Your task to perform on an android device: toggle improve location accuracy Image 0: 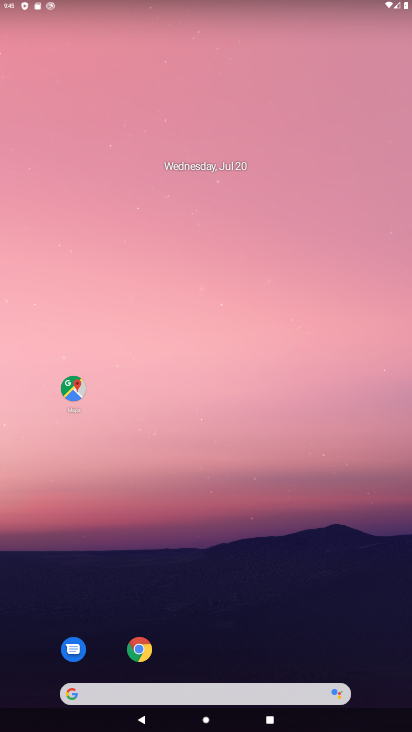
Step 0: drag from (374, 638) to (282, 230)
Your task to perform on an android device: toggle improve location accuracy Image 1: 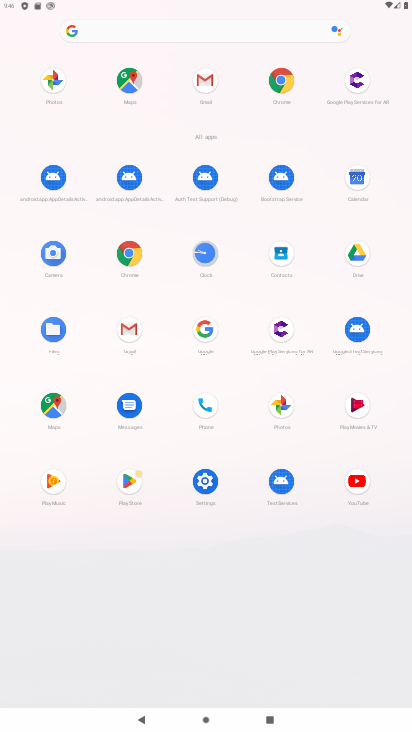
Step 1: click (213, 473)
Your task to perform on an android device: toggle improve location accuracy Image 2: 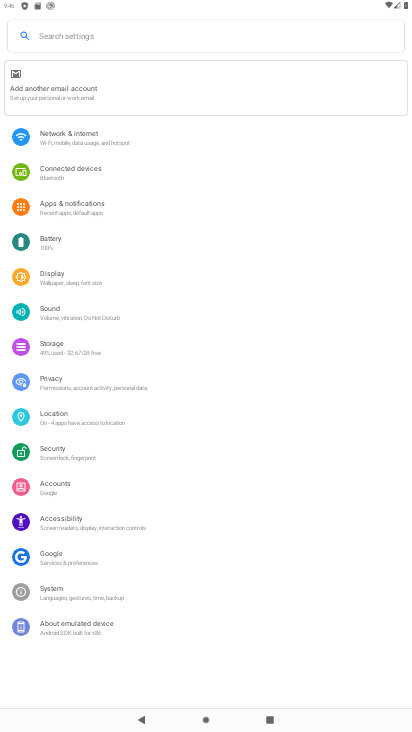
Step 2: click (59, 432)
Your task to perform on an android device: toggle improve location accuracy Image 3: 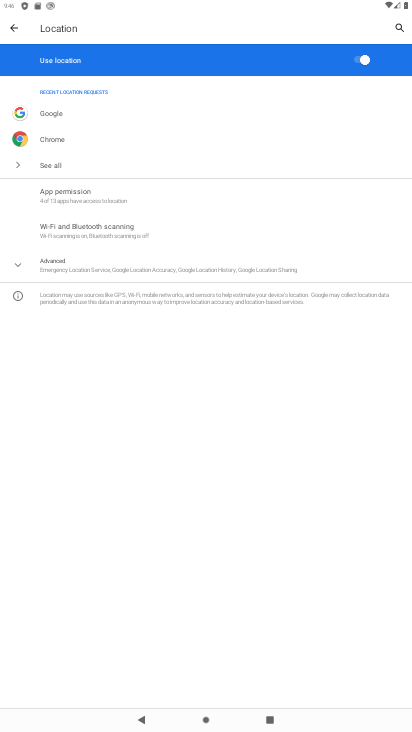
Step 3: click (140, 261)
Your task to perform on an android device: toggle improve location accuracy Image 4: 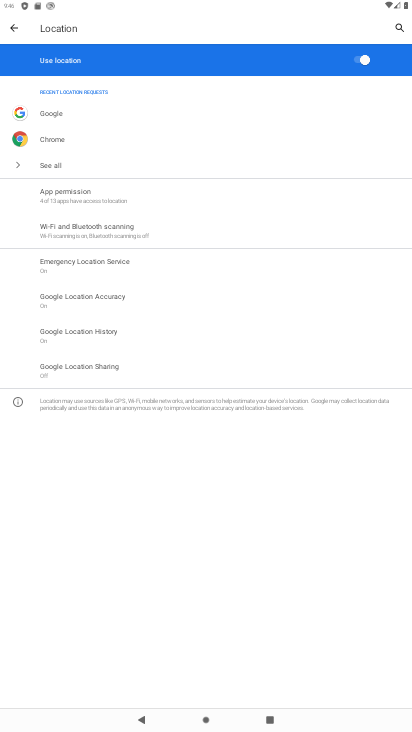
Step 4: click (109, 302)
Your task to perform on an android device: toggle improve location accuracy Image 5: 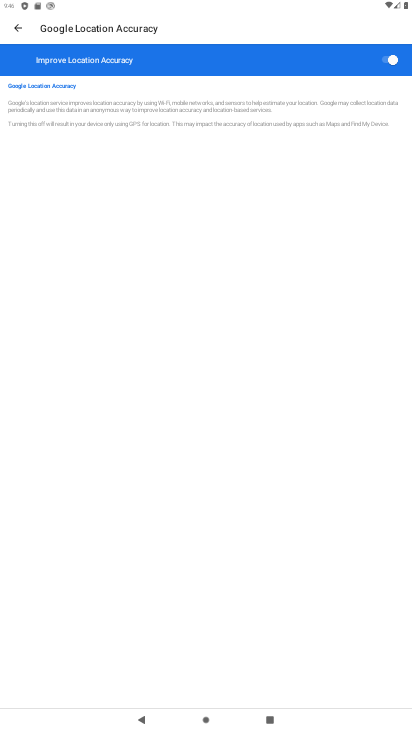
Step 5: click (398, 57)
Your task to perform on an android device: toggle improve location accuracy Image 6: 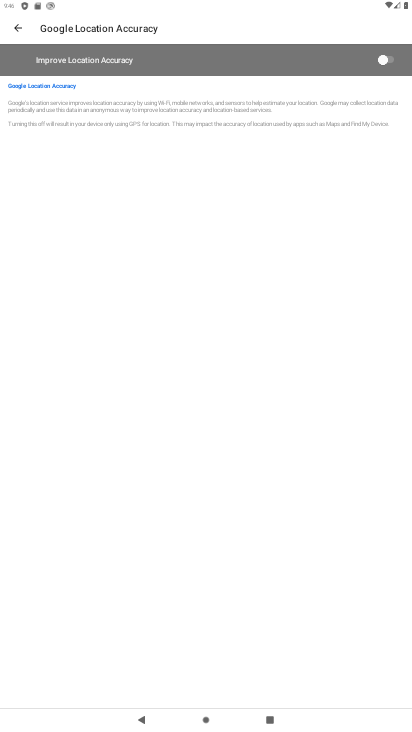
Step 6: task complete